Your task to perform on an android device: set the timer Image 0: 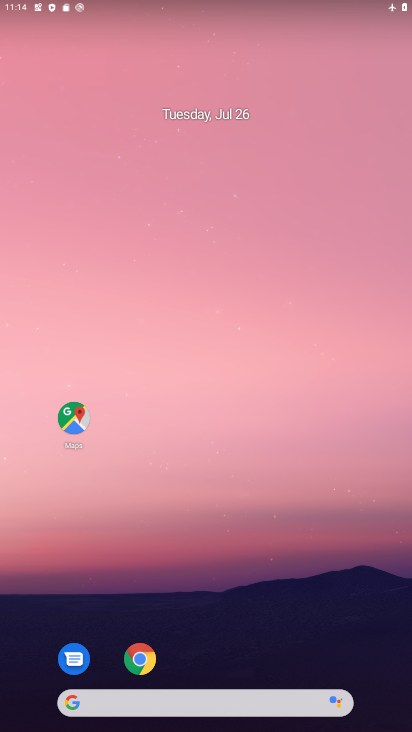
Step 0: drag from (177, 695) to (174, 106)
Your task to perform on an android device: set the timer Image 1: 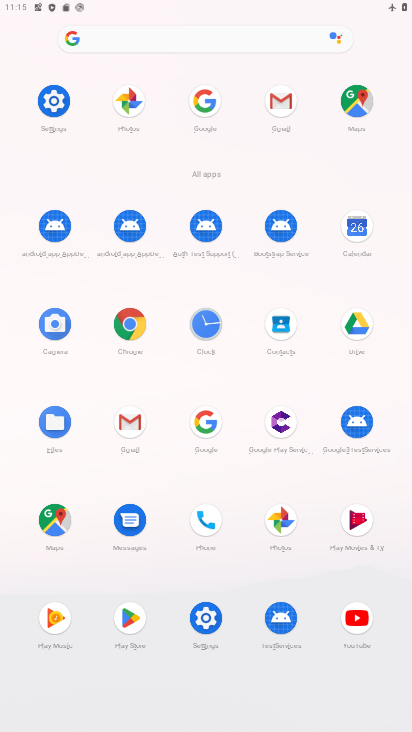
Step 1: click (206, 325)
Your task to perform on an android device: set the timer Image 2: 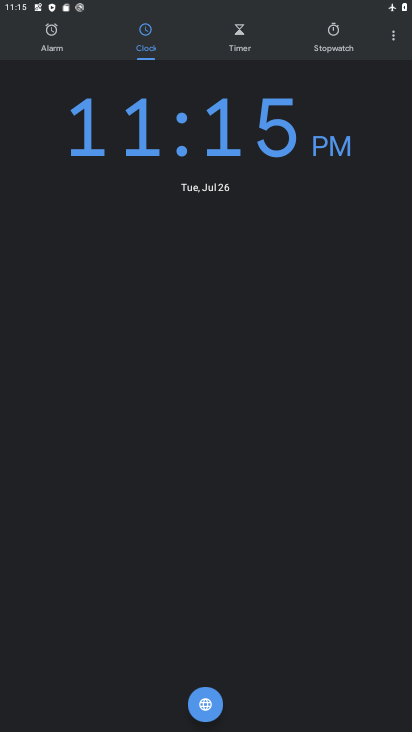
Step 2: click (236, 31)
Your task to perform on an android device: set the timer Image 3: 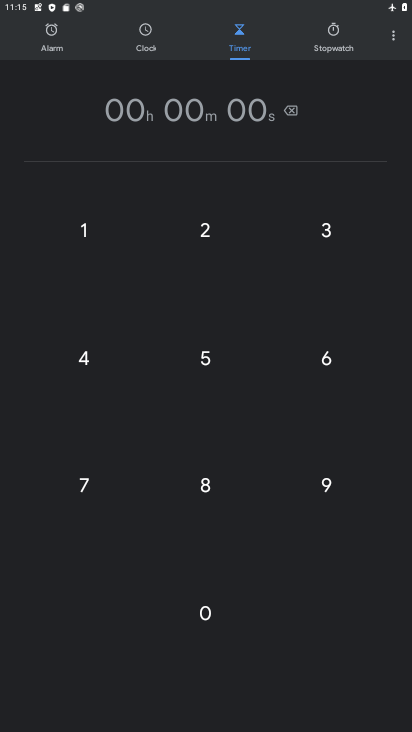
Step 3: type "148"
Your task to perform on an android device: set the timer Image 4: 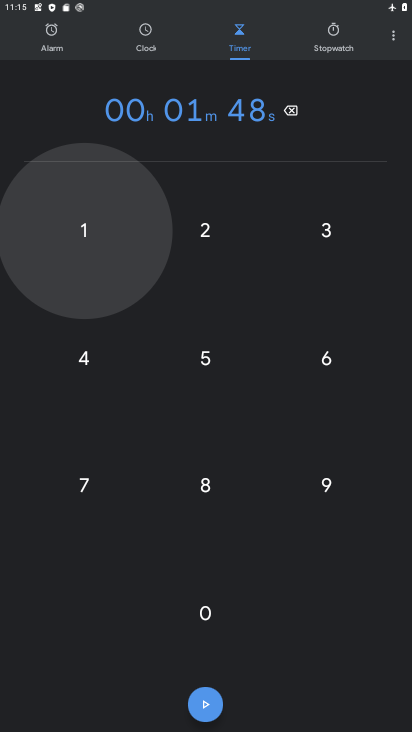
Step 4: click (202, 703)
Your task to perform on an android device: set the timer Image 5: 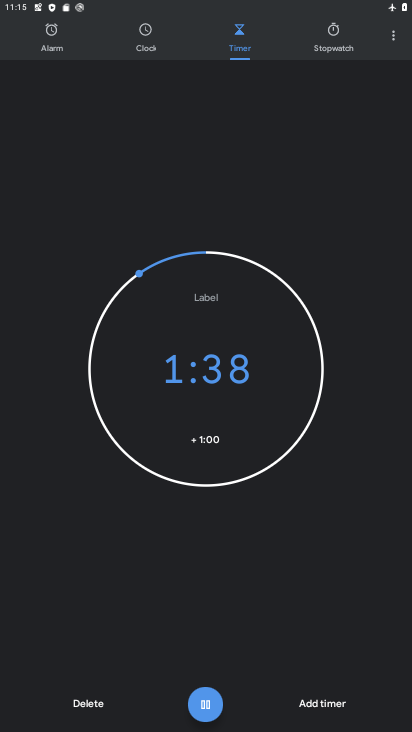
Step 5: click (211, 703)
Your task to perform on an android device: set the timer Image 6: 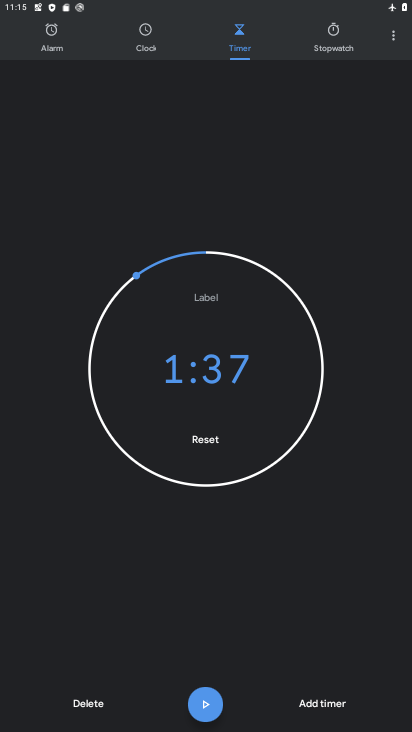
Step 6: task complete